Your task to perform on an android device: Show me recent news Image 0: 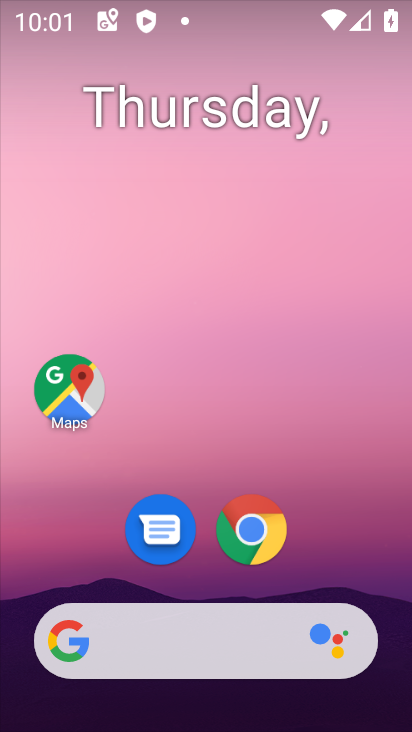
Step 0: click (183, 647)
Your task to perform on an android device: Show me recent news Image 1: 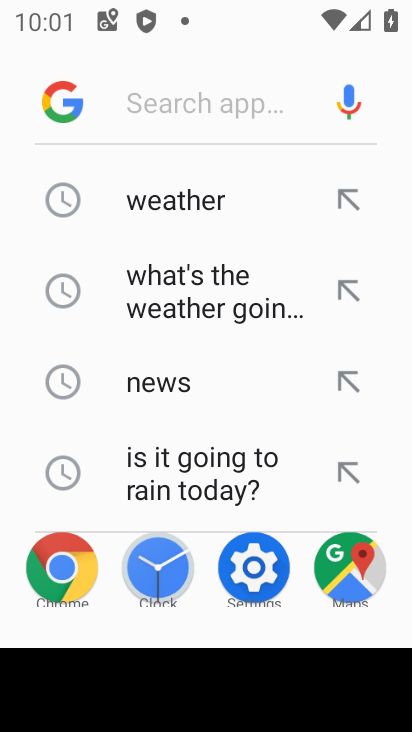
Step 1: type "recent news"
Your task to perform on an android device: Show me recent news Image 2: 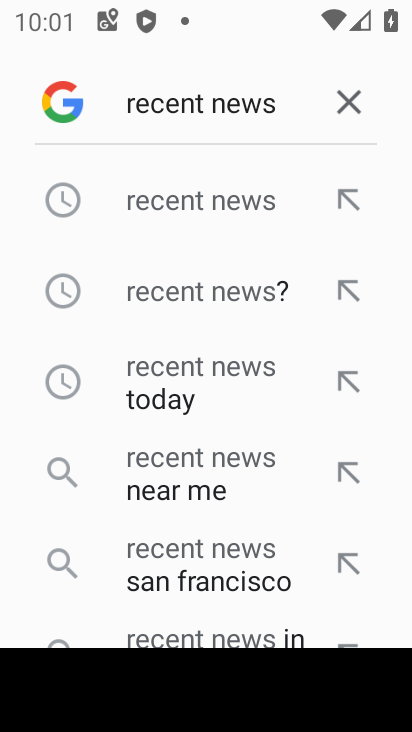
Step 2: click (190, 205)
Your task to perform on an android device: Show me recent news Image 3: 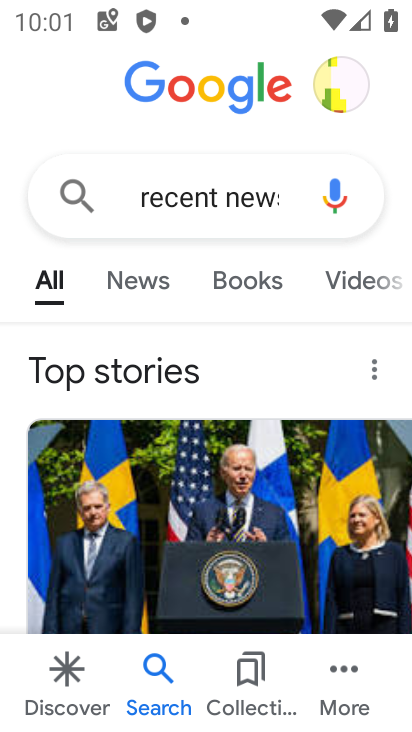
Step 3: click (142, 291)
Your task to perform on an android device: Show me recent news Image 4: 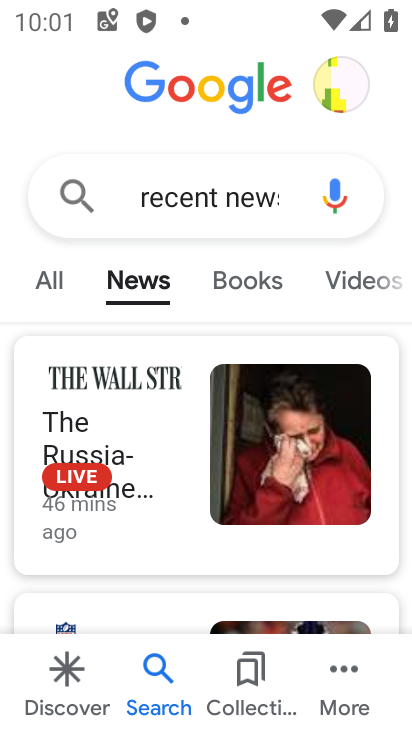
Step 4: task complete